Your task to perform on an android device: What is the recent news? Image 0: 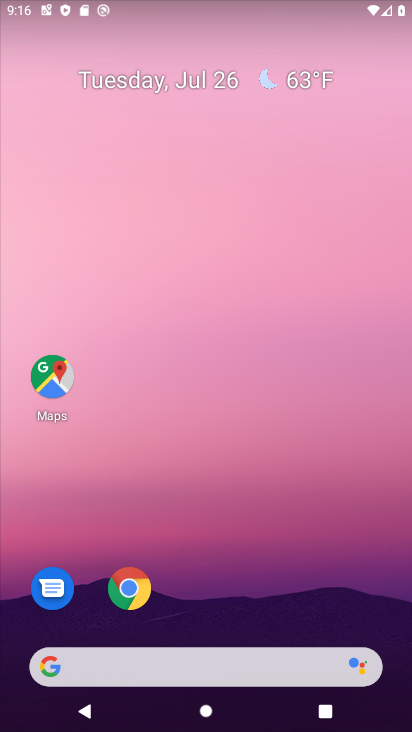
Step 0: click (202, 680)
Your task to perform on an android device: What is the recent news? Image 1: 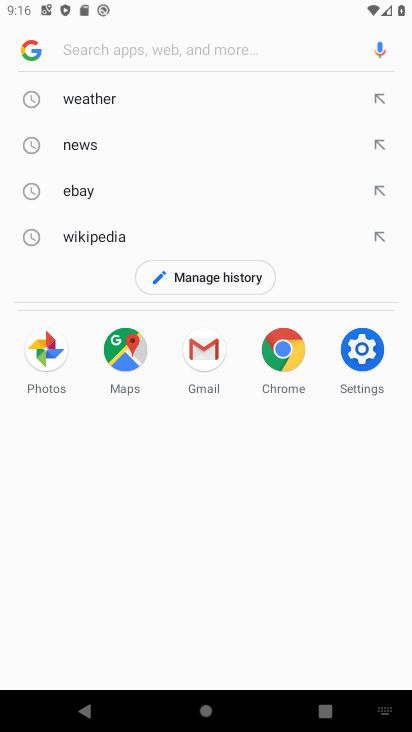
Step 1: click (37, 61)
Your task to perform on an android device: What is the recent news? Image 2: 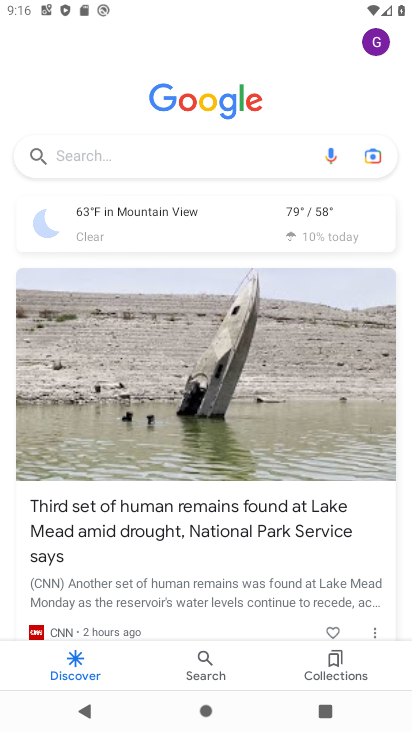
Step 2: task complete